Your task to perform on an android device: open a bookmark in the chrome app Image 0: 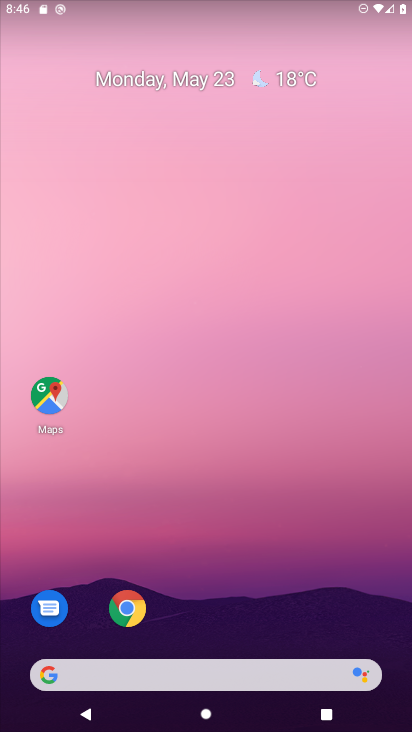
Step 0: click (119, 608)
Your task to perform on an android device: open a bookmark in the chrome app Image 1: 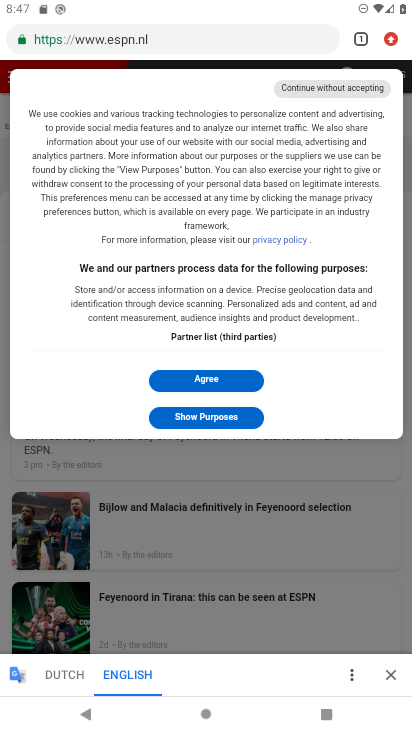
Step 1: click (394, 42)
Your task to perform on an android device: open a bookmark in the chrome app Image 2: 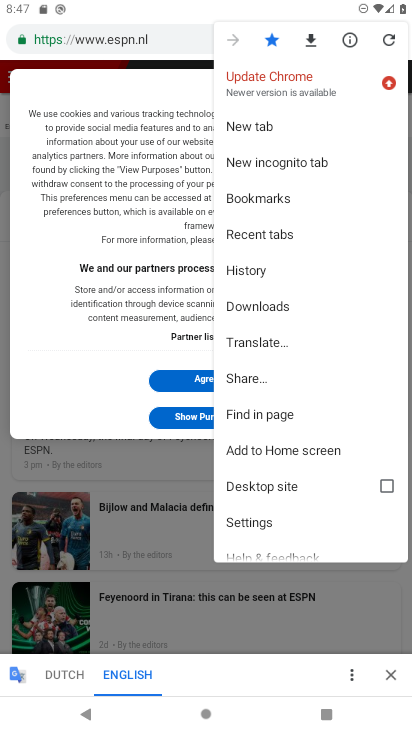
Step 2: click (268, 201)
Your task to perform on an android device: open a bookmark in the chrome app Image 3: 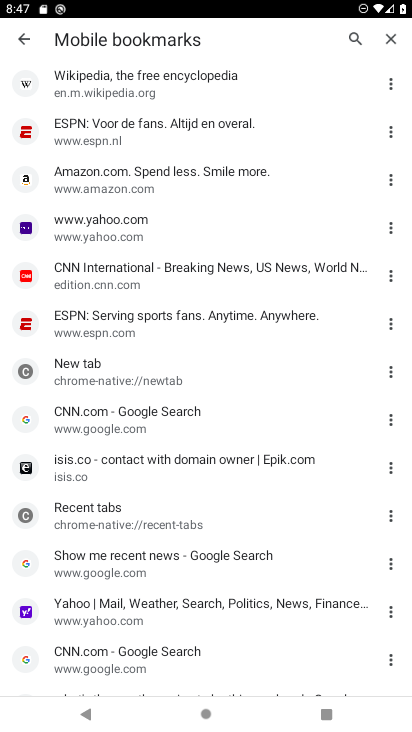
Step 3: click (149, 181)
Your task to perform on an android device: open a bookmark in the chrome app Image 4: 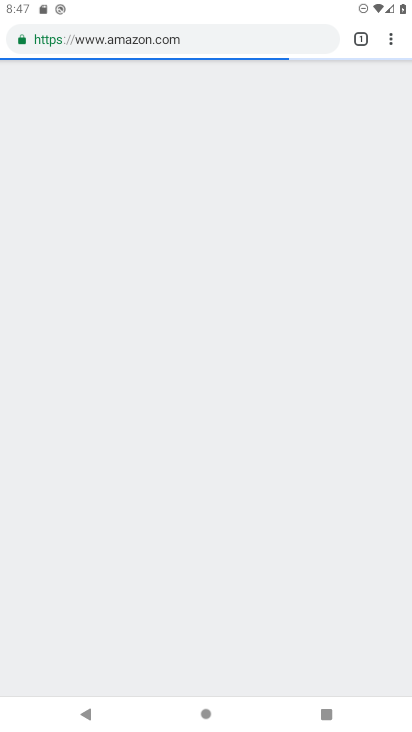
Step 4: task complete